Your task to perform on an android device: turn off notifications in google photos Image 0: 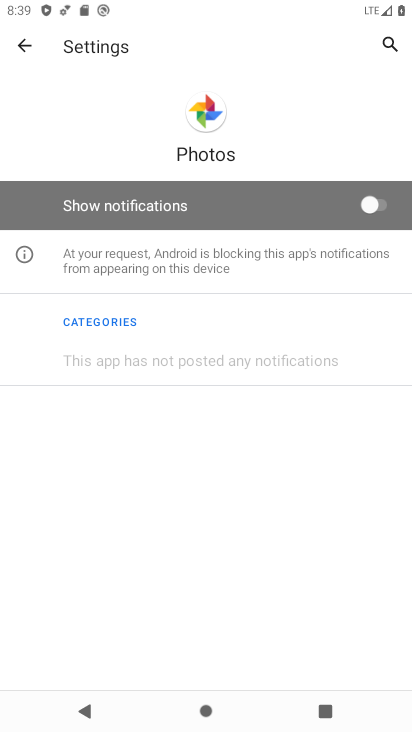
Step 0: task complete